Your task to perform on an android device: remove spam from my inbox in the gmail app Image 0: 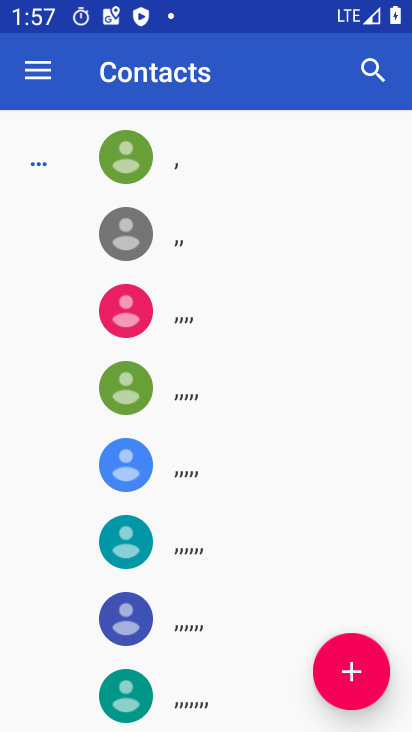
Step 0: drag from (193, 12) to (223, 565)
Your task to perform on an android device: remove spam from my inbox in the gmail app Image 1: 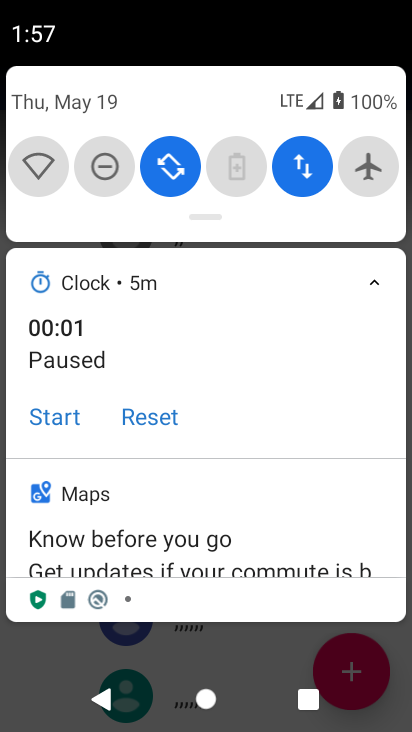
Step 1: press back button
Your task to perform on an android device: remove spam from my inbox in the gmail app Image 2: 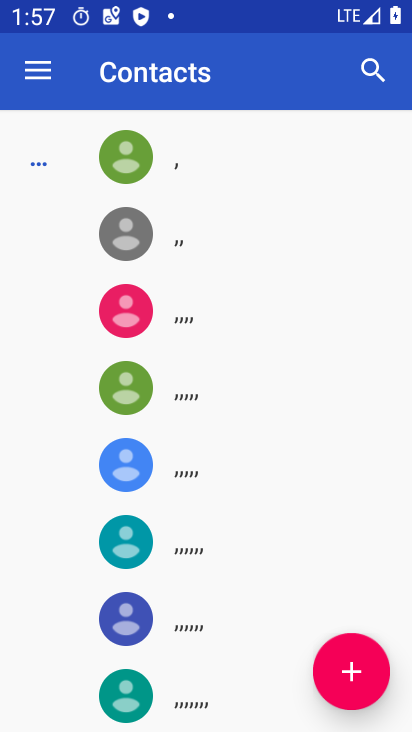
Step 2: press home button
Your task to perform on an android device: remove spam from my inbox in the gmail app Image 3: 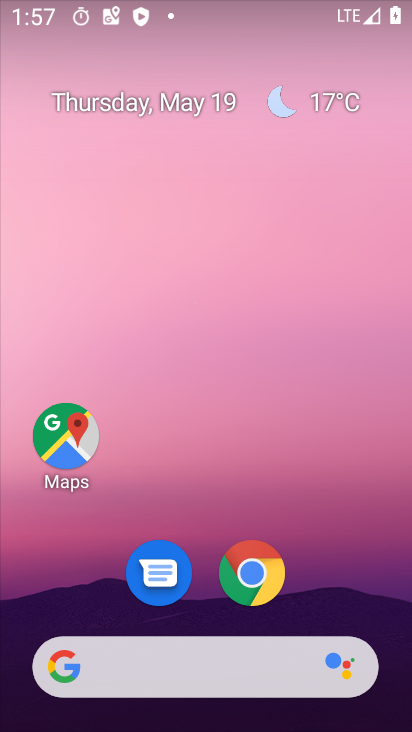
Step 3: drag from (176, 634) to (276, 53)
Your task to perform on an android device: remove spam from my inbox in the gmail app Image 4: 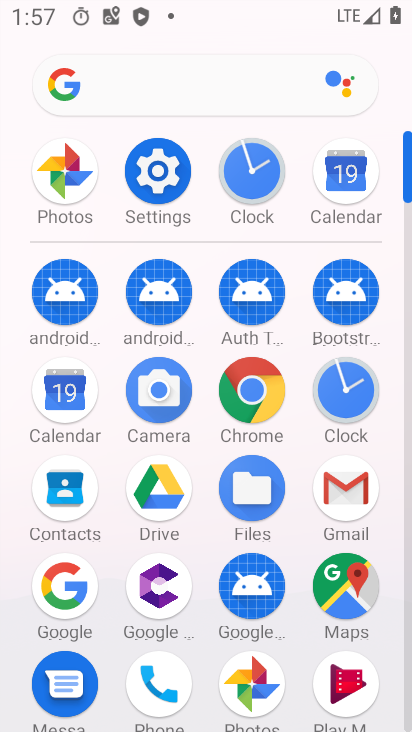
Step 4: click (329, 495)
Your task to perform on an android device: remove spam from my inbox in the gmail app Image 5: 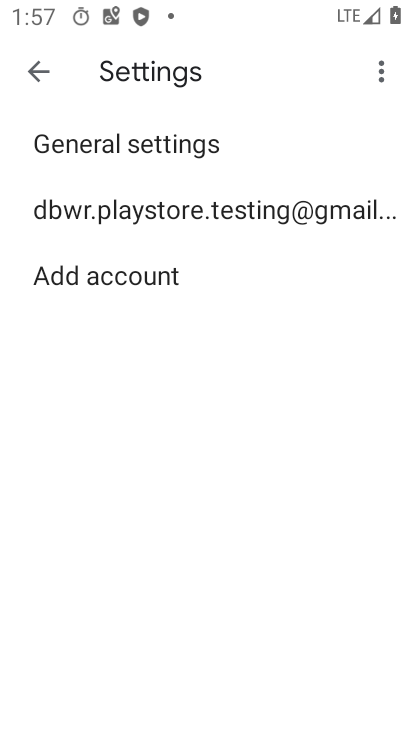
Step 5: click (183, 220)
Your task to perform on an android device: remove spam from my inbox in the gmail app Image 6: 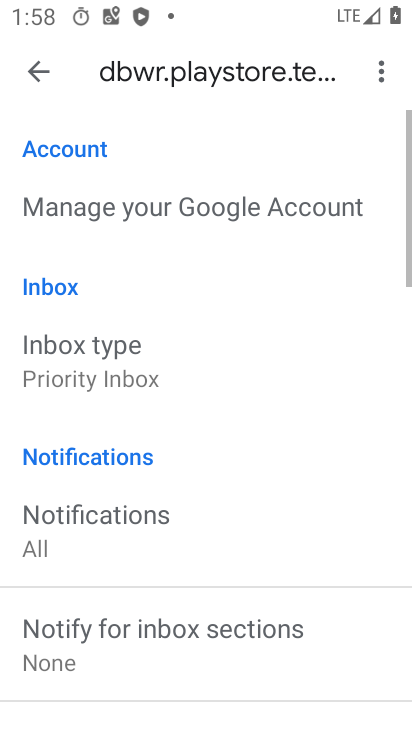
Step 6: drag from (129, 660) to (221, 136)
Your task to perform on an android device: remove spam from my inbox in the gmail app Image 7: 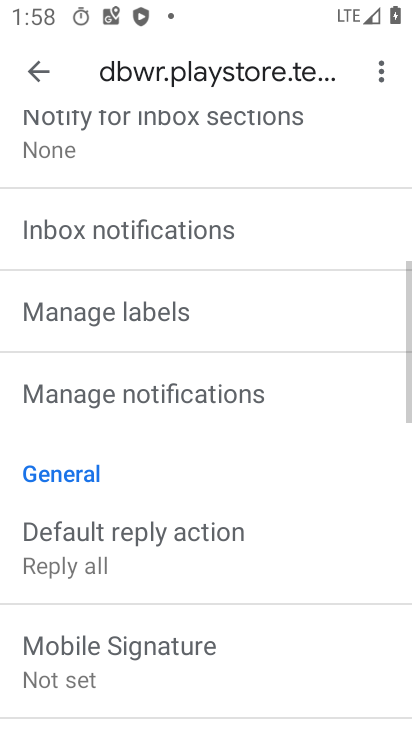
Step 7: drag from (153, 568) to (234, 117)
Your task to perform on an android device: remove spam from my inbox in the gmail app Image 8: 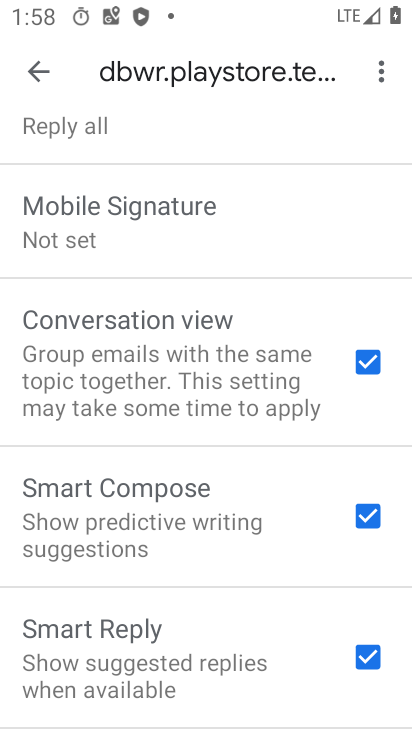
Step 8: click (42, 60)
Your task to perform on an android device: remove spam from my inbox in the gmail app Image 9: 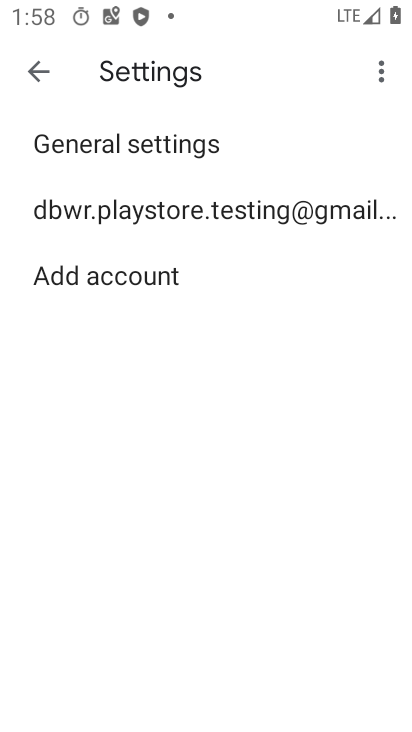
Step 9: click (36, 66)
Your task to perform on an android device: remove spam from my inbox in the gmail app Image 10: 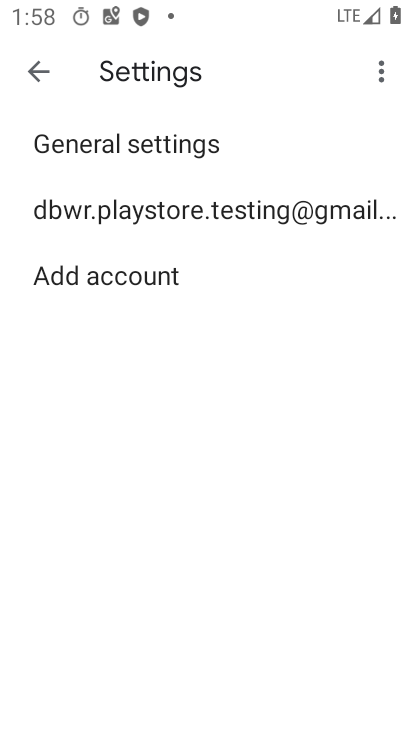
Step 10: click (37, 70)
Your task to perform on an android device: remove spam from my inbox in the gmail app Image 11: 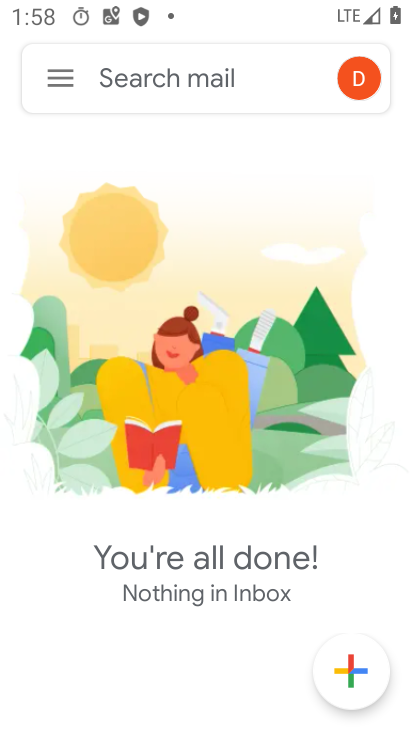
Step 11: click (31, 83)
Your task to perform on an android device: remove spam from my inbox in the gmail app Image 12: 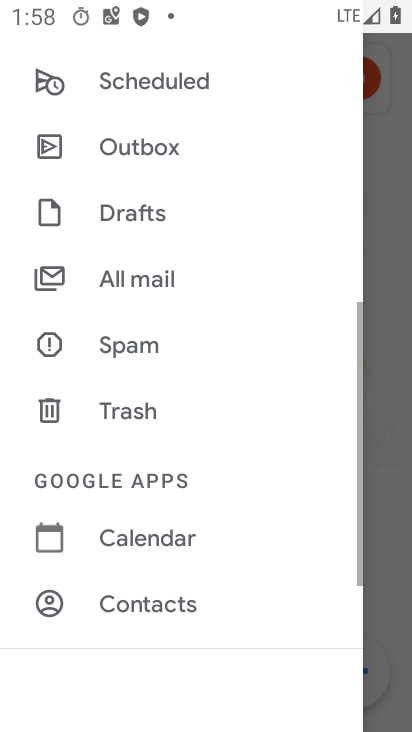
Step 12: drag from (106, 542) to (236, 14)
Your task to perform on an android device: remove spam from my inbox in the gmail app Image 13: 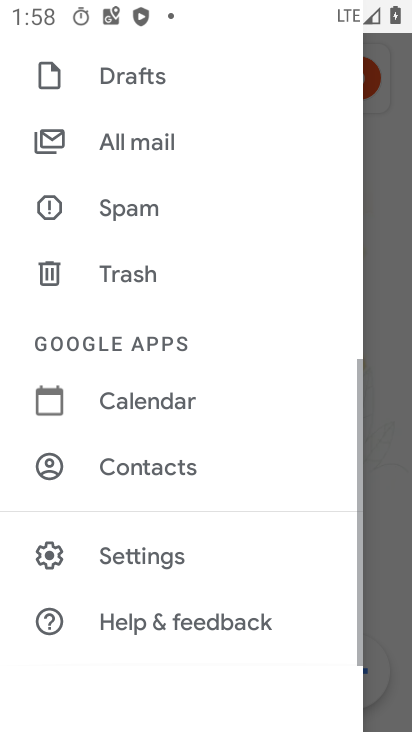
Step 13: drag from (186, 158) to (163, 572)
Your task to perform on an android device: remove spam from my inbox in the gmail app Image 14: 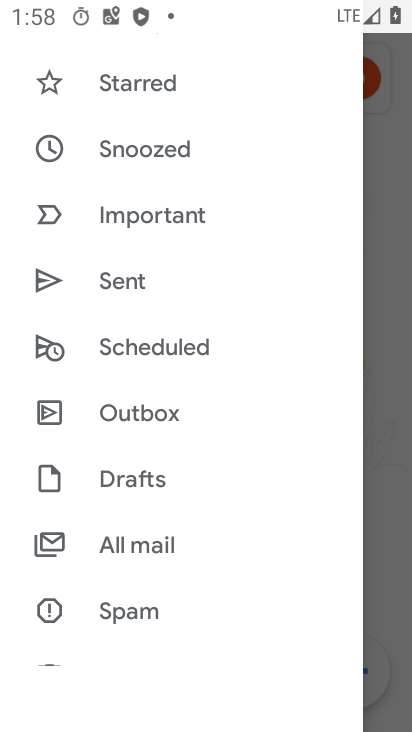
Step 14: click (134, 612)
Your task to perform on an android device: remove spam from my inbox in the gmail app Image 15: 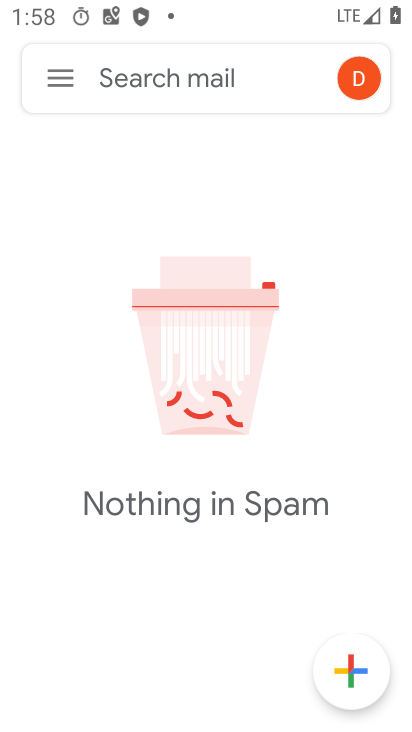
Step 15: task complete